Your task to perform on an android device: Open Reddit.com Image 0: 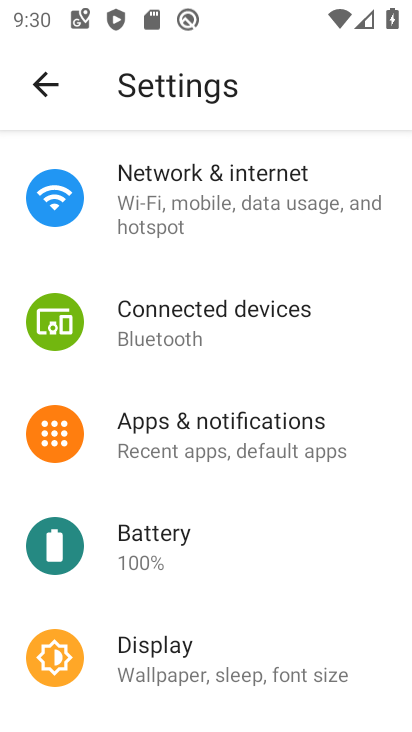
Step 0: press home button
Your task to perform on an android device: Open Reddit.com Image 1: 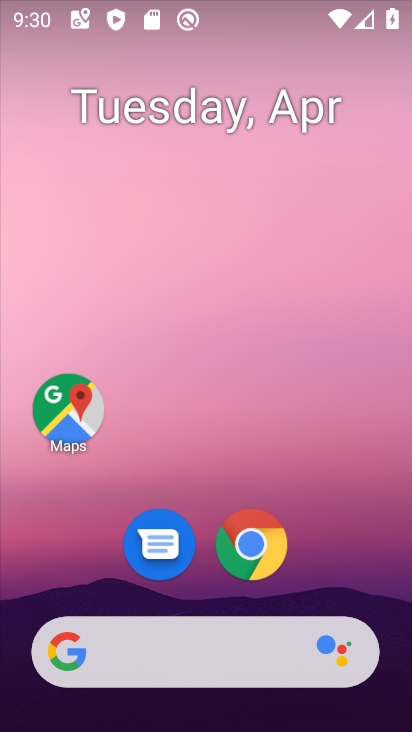
Step 1: click (248, 564)
Your task to perform on an android device: Open Reddit.com Image 2: 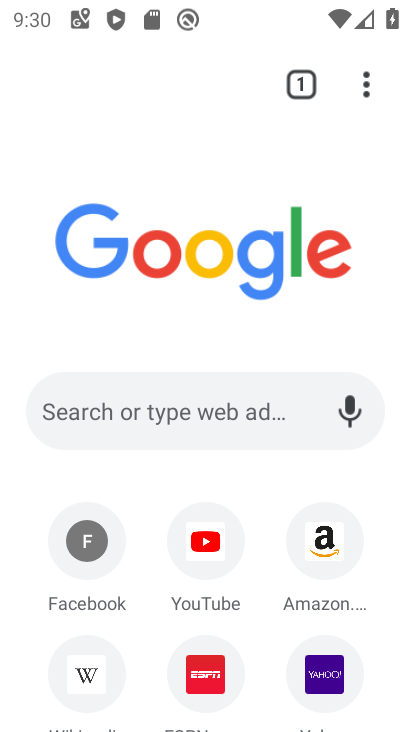
Step 2: click (189, 409)
Your task to perform on an android device: Open Reddit.com Image 3: 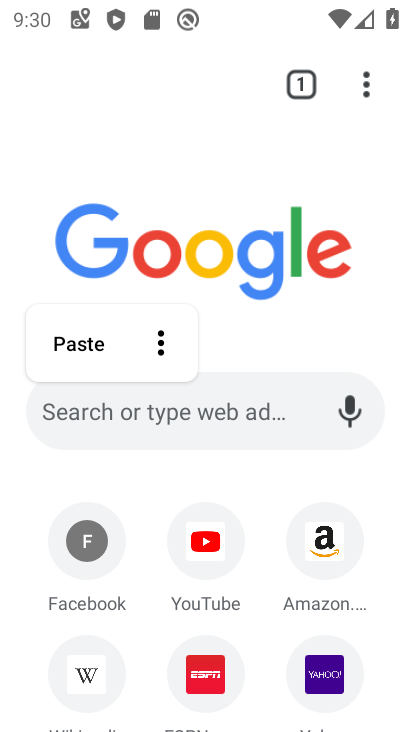
Step 3: type "reddit.com"
Your task to perform on an android device: Open Reddit.com Image 4: 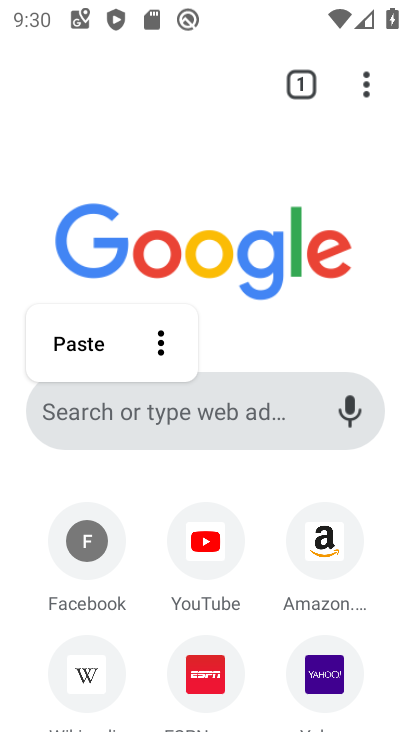
Step 4: type "reddit.com"
Your task to perform on an android device: Open Reddit.com Image 5: 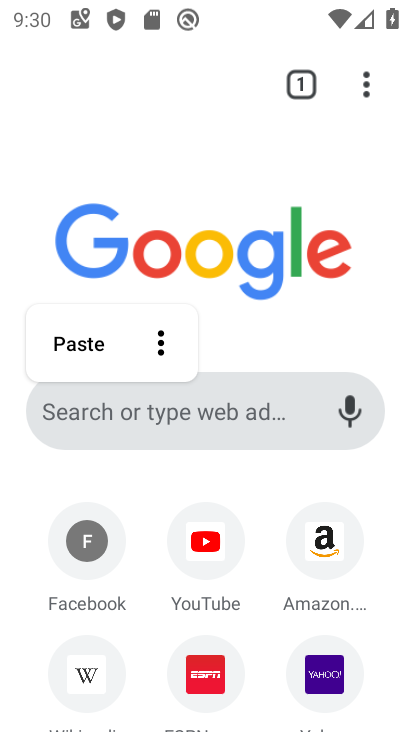
Step 5: click (228, 427)
Your task to perform on an android device: Open Reddit.com Image 6: 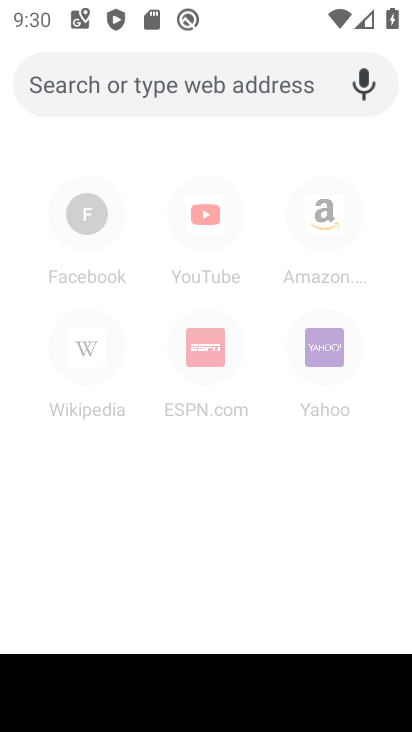
Step 6: type "reddit.com"
Your task to perform on an android device: Open Reddit.com Image 7: 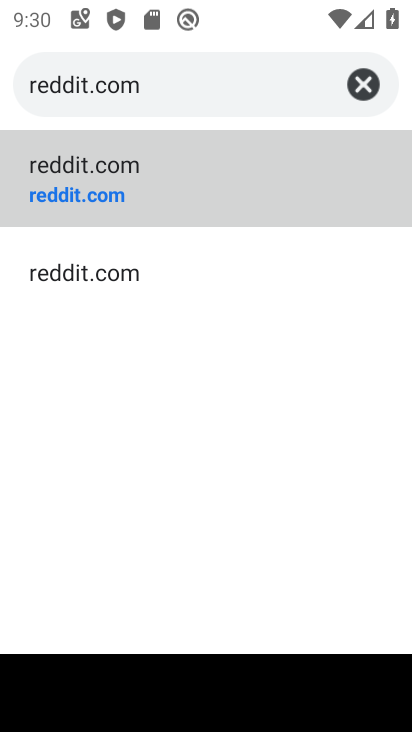
Step 7: click (80, 190)
Your task to perform on an android device: Open Reddit.com Image 8: 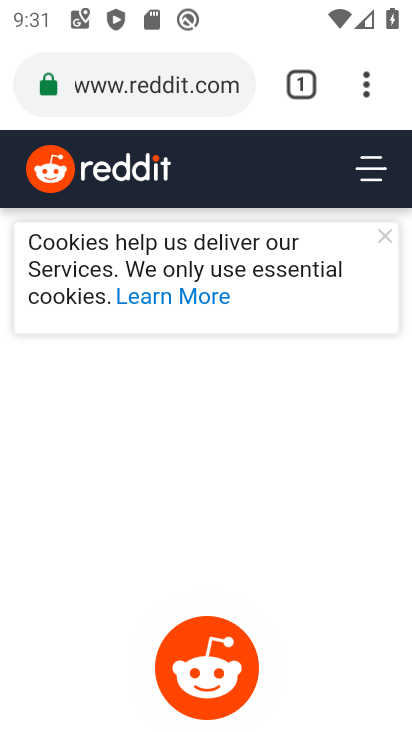
Step 8: task complete